Your task to perform on an android device: Turn off the flashlight Image 0: 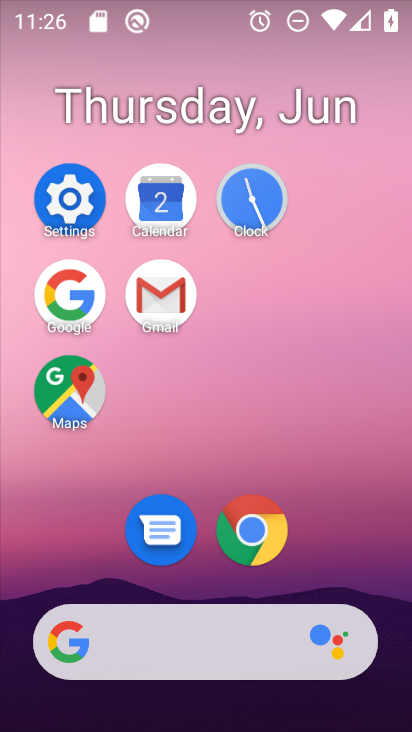
Step 0: drag from (234, 226) to (266, 370)
Your task to perform on an android device: Turn off the flashlight Image 1: 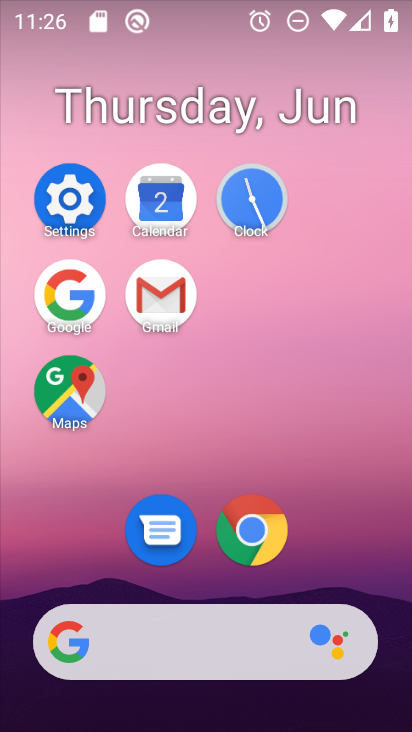
Step 1: task complete